Your task to perform on an android device: Go to accessibility settings Image 0: 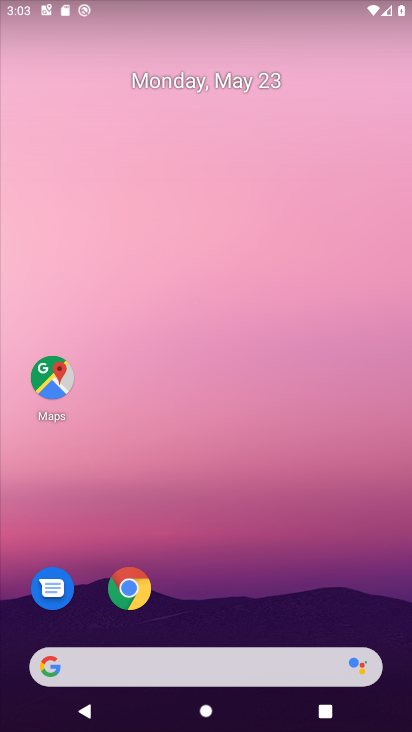
Step 0: drag from (168, 635) to (233, 171)
Your task to perform on an android device: Go to accessibility settings Image 1: 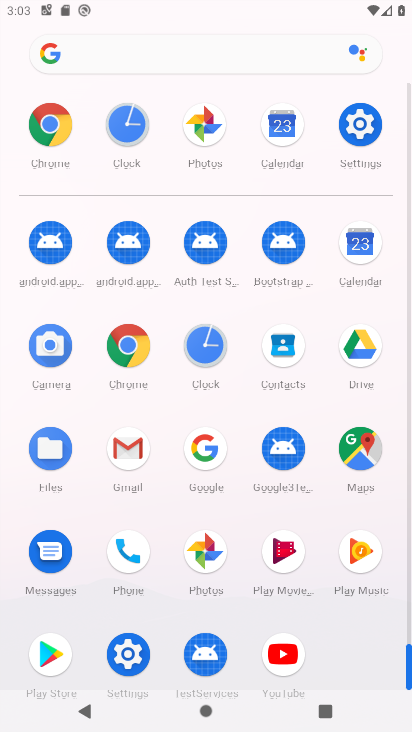
Step 1: click (355, 111)
Your task to perform on an android device: Go to accessibility settings Image 2: 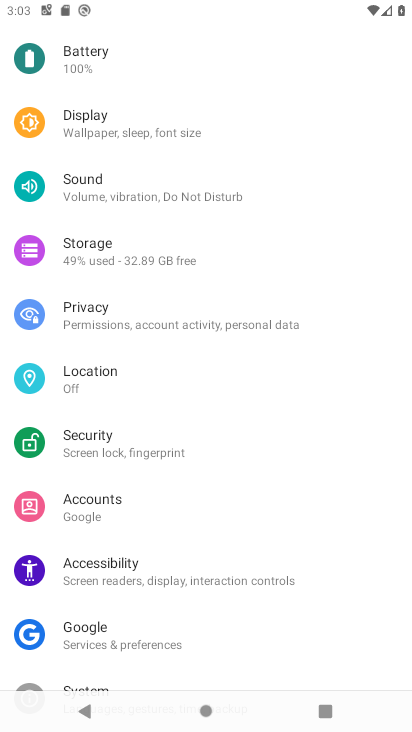
Step 2: click (105, 576)
Your task to perform on an android device: Go to accessibility settings Image 3: 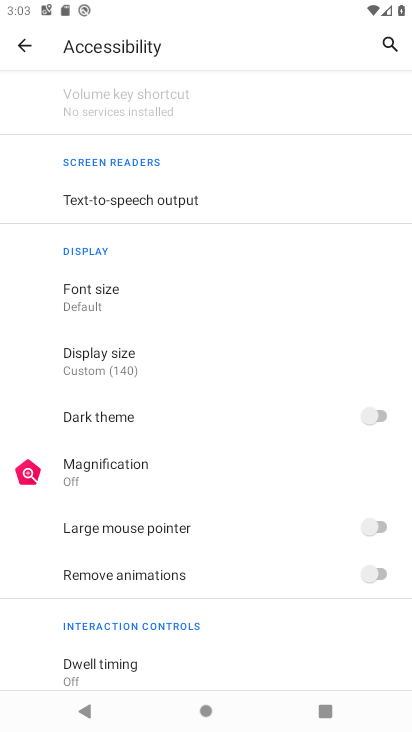
Step 3: task complete